Your task to perform on an android device: Open calendar and show me the fourth week of next month Image 0: 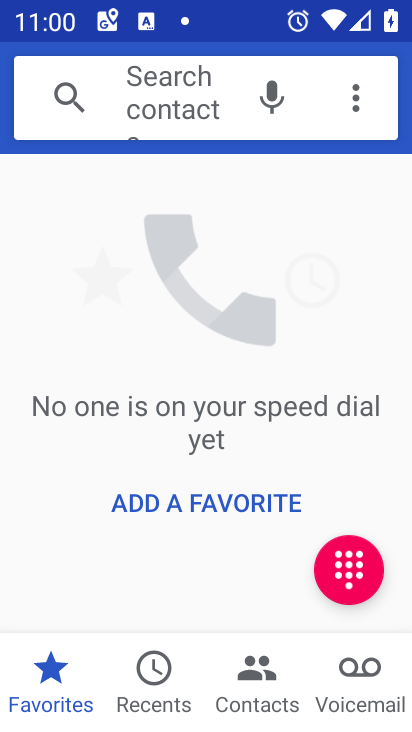
Step 0: press home button
Your task to perform on an android device: Open calendar and show me the fourth week of next month Image 1: 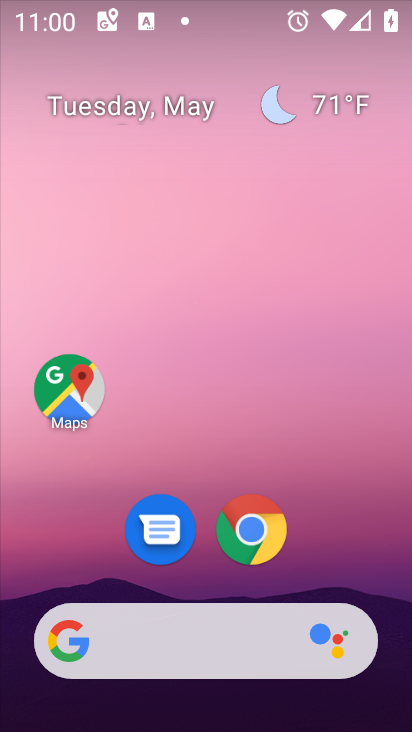
Step 1: drag from (147, 647) to (8, 365)
Your task to perform on an android device: Open calendar and show me the fourth week of next month Image 2: 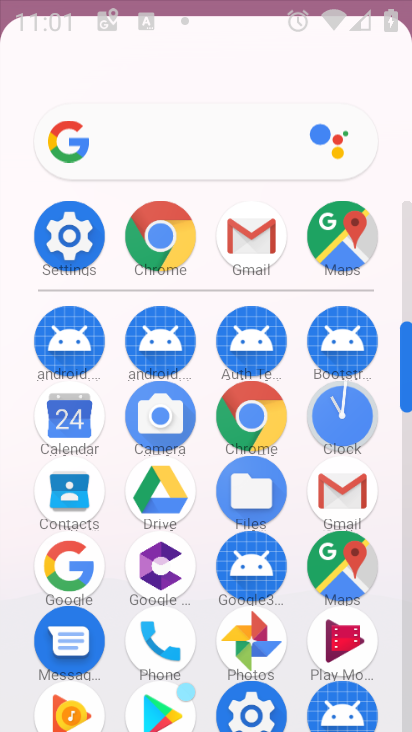
Step 2: click (120, 399)
Your task to perform on an android device: Open calendar and show me the fourth week of next month Image 3: 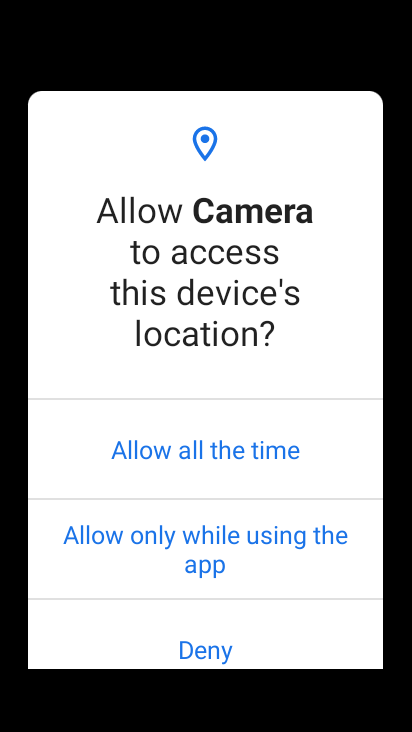
Step 3: press home button
Your task to perform on an android device: Open calendar and show me the fourth week of next month Image 4: 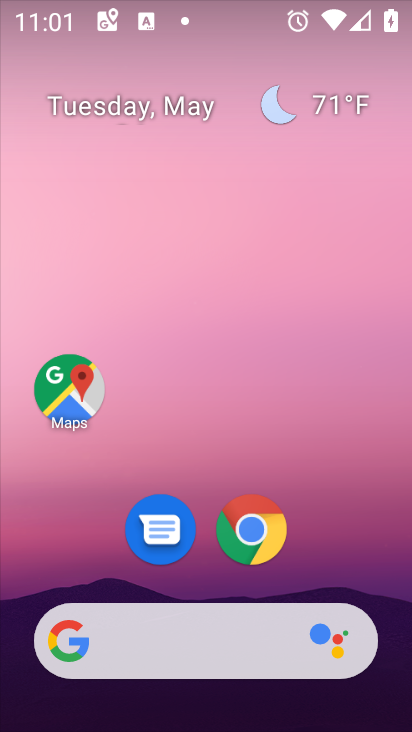
Step 4: drag from (156, 552) to (167, 0)
Your task to perform on an android device: Open calendar and show me the fourth week of next month Image 5: 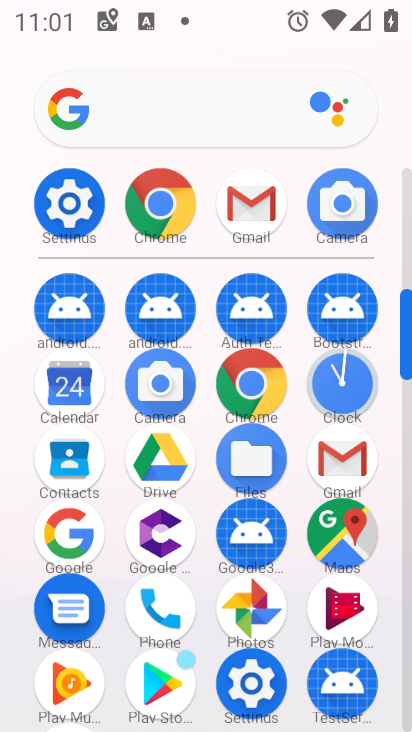
Step 5: click (55, 378)
Your task to perform on an android device: Open calendar and show me the fourth week of next month Image 6: 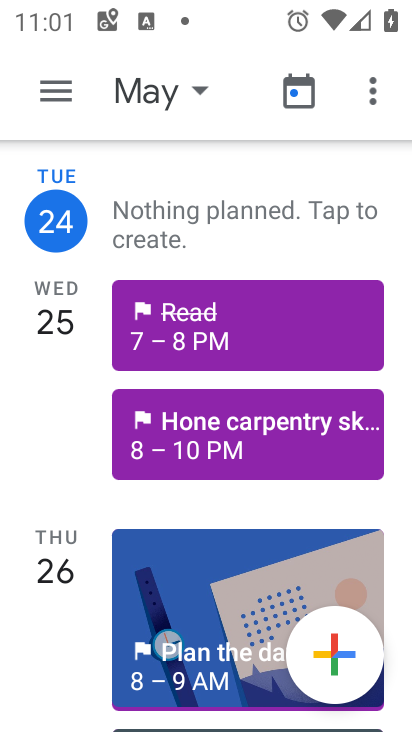
Step 6: click (163, 90)
Your task to perform on an android device: Open calendar and show me the fourth week of next month Image 7: 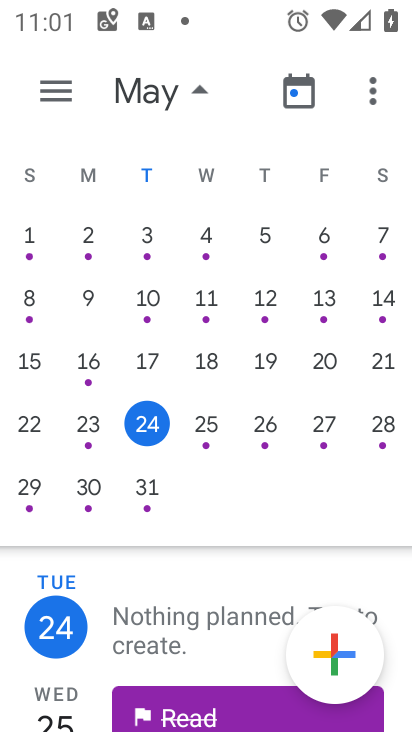
Step 7: drag from (312, 354) to (6, 369)
Your task to perform on an android device: Open calendar and show me the fourth week of next month Image 8: 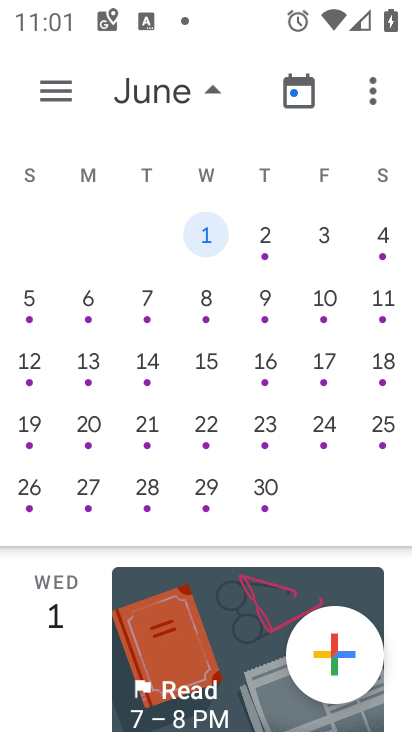
Step 8: click (35, 440)
Your task to perform on an android device: Open calendar and show me the fourth week of next month Image 9: 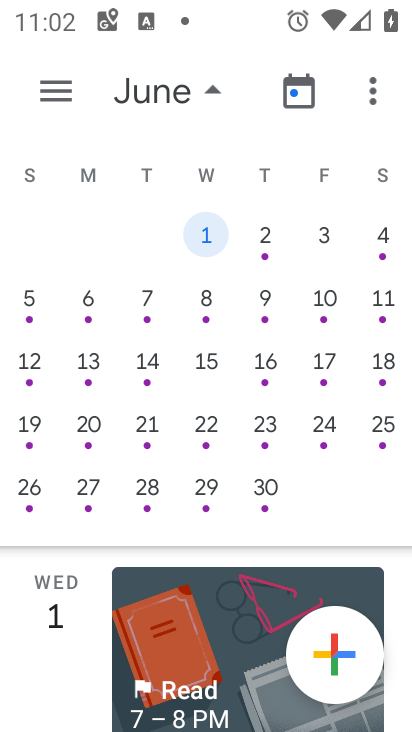
Step 9: click (35, 444)
Your task to perform on an android device: Open calendar and show me the fourth week of next month Image 10: 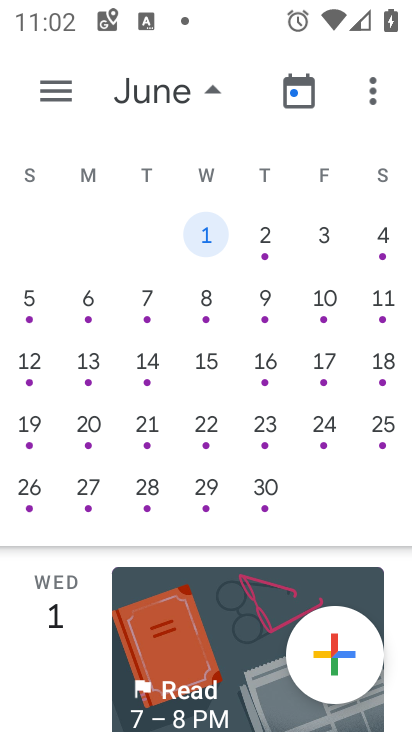
Step 10: click (45, 432)
Your task to perform on an android device: Open calendar and show me the fourth week of next month Image 11: 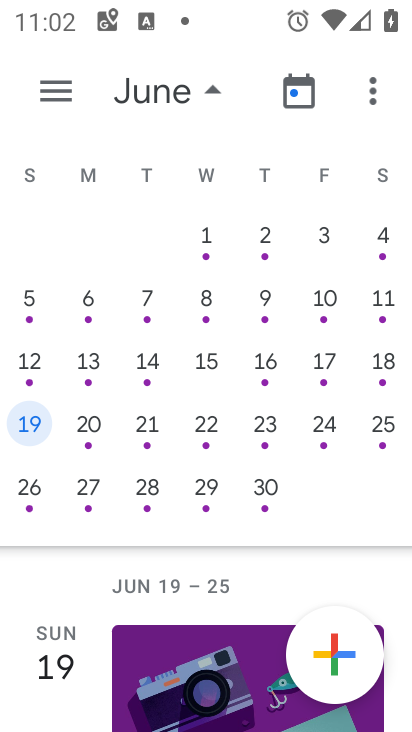
Step 11: task complete